Your task to perform on an android device: Go to display settings Image 0: 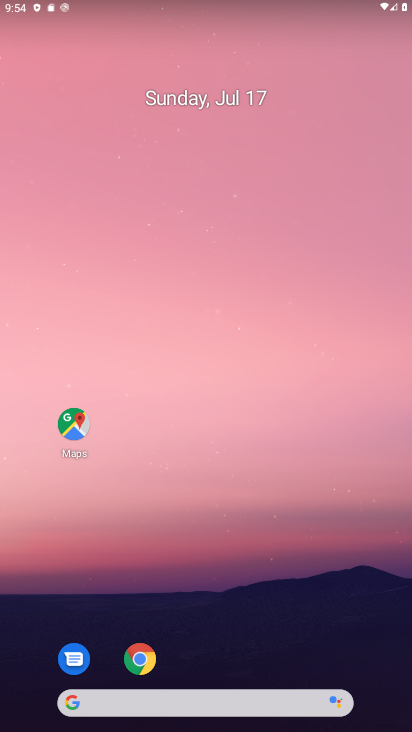
Step 0: drag from (186, 701) to (173, 117)
Your task to perform on an android device: Go to display settings Image 1: 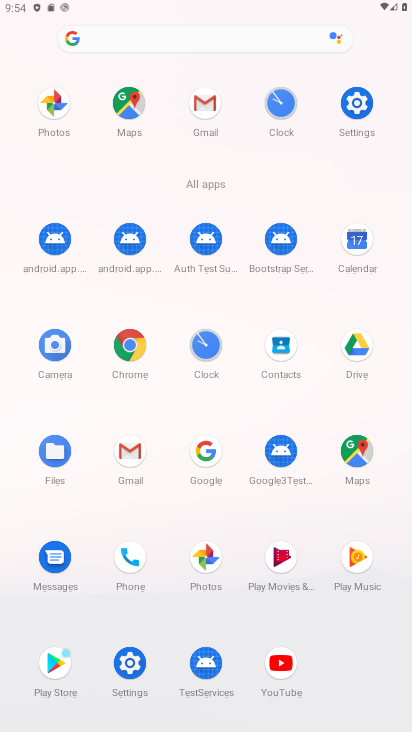
Step 1: click (135, 663)
Your task to perform on an android device: Go to display settings Image 2: 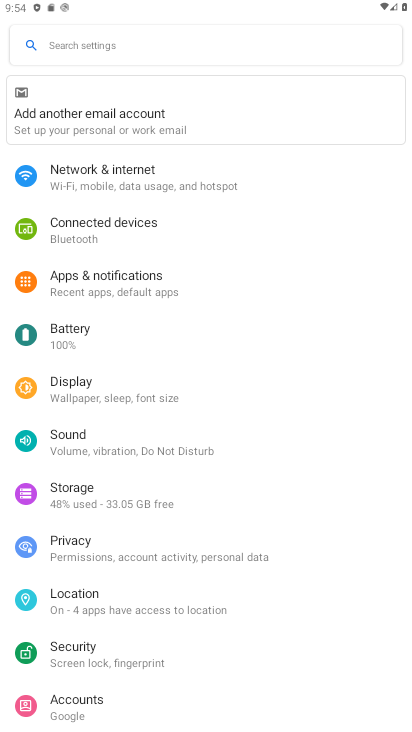
Step 2: click (80, 394)
Your task to perform on an android device: Go to display settings Image 3: 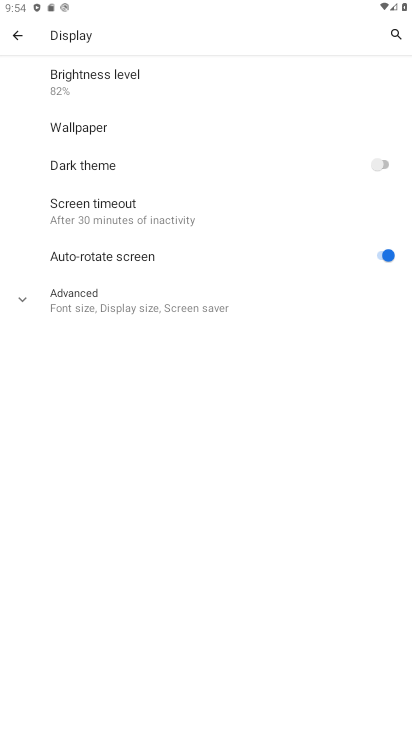
Step 3: task complete